Your task to perform on an android device: Search for pizza restaurants on Maps Image 0: 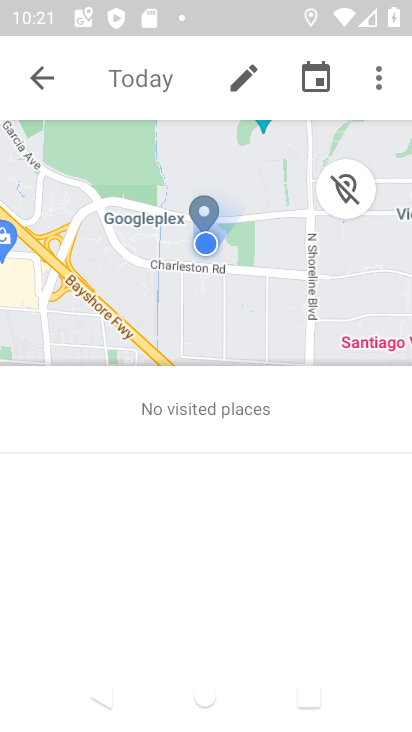
Step 0: press home button
Your task to perform on an android device: Search for pizza restaurants on Maps Image 1: 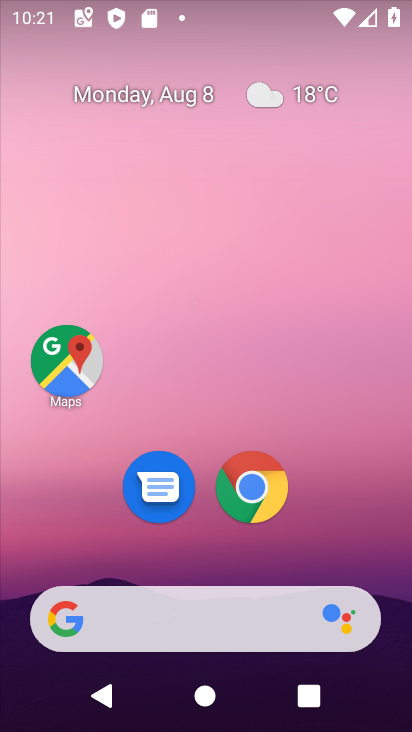
Step 1: drag from (209, 582) to (209, 24)
Your task to perform on an android device: Search for pizza restaurants on Maps Image 2: 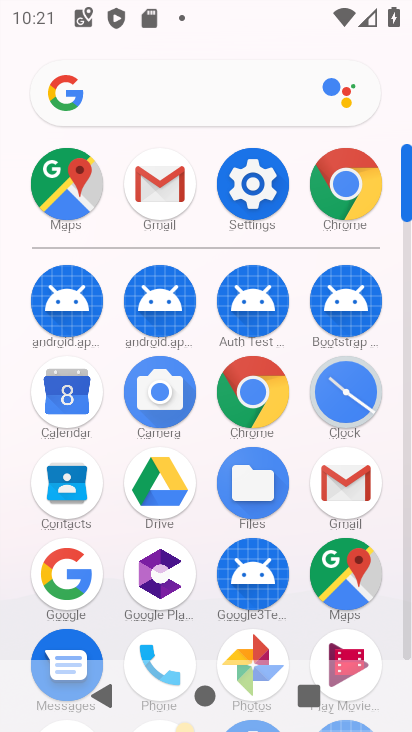
Step 2: click (350, 569)
Your task to perform on an android device: Search for pizza restaurants on Maps Image 3: 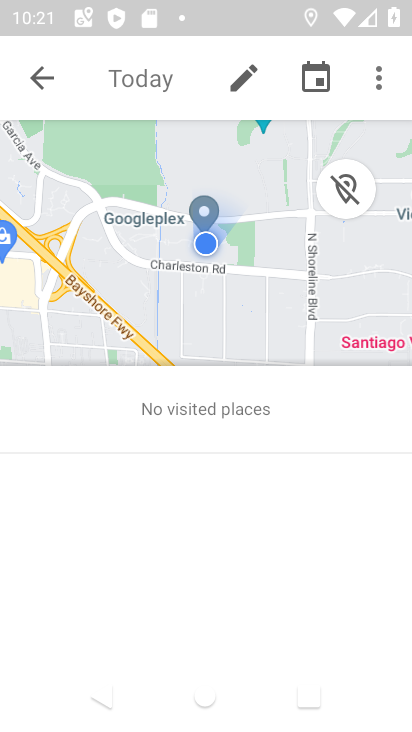
Step 3: click (42, 75)
Your task to perform on an android device: Search for pizza restaurants on Maps Image 4: 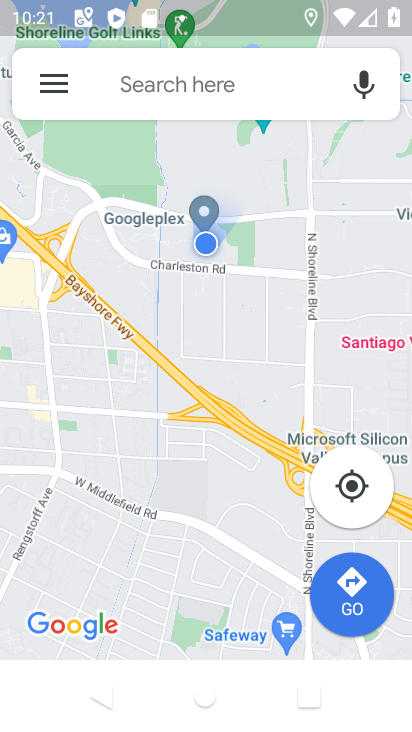
Step 4: click (167, 82)
Your task to perform on an android device: Search for pizza restaurants on Maps Image 5: 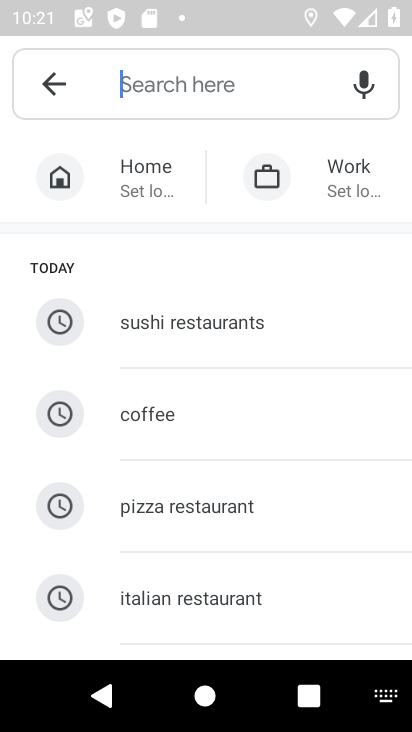
Step 5: type "pizza restaurants"
Your task to perform on an android device: Search for pizza restaurants on Maps Image 6: 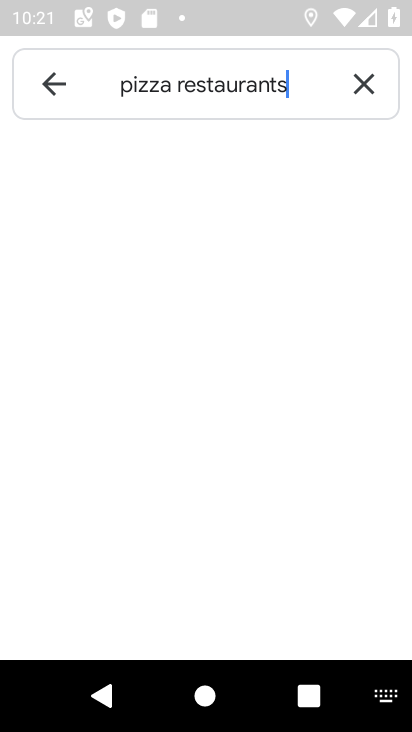
Step 6: type ""
Your task to perform on an android device: Search for pizza restaurants on Maps Image 7: 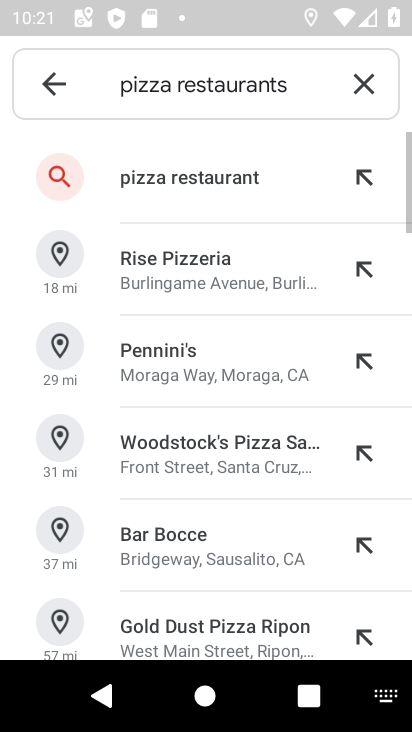
Step 7: click (216, 177)
Your task to perform on an android device: Search for pizza restaurants on Maps Image 8: 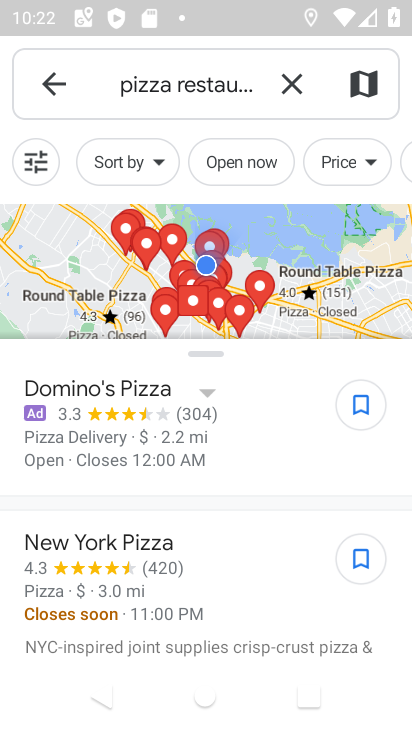
Step 8: task complete